Your task to perform on an android device: Add usb-c to usb-b to the cart on walmart, then select checkout. Image 0: 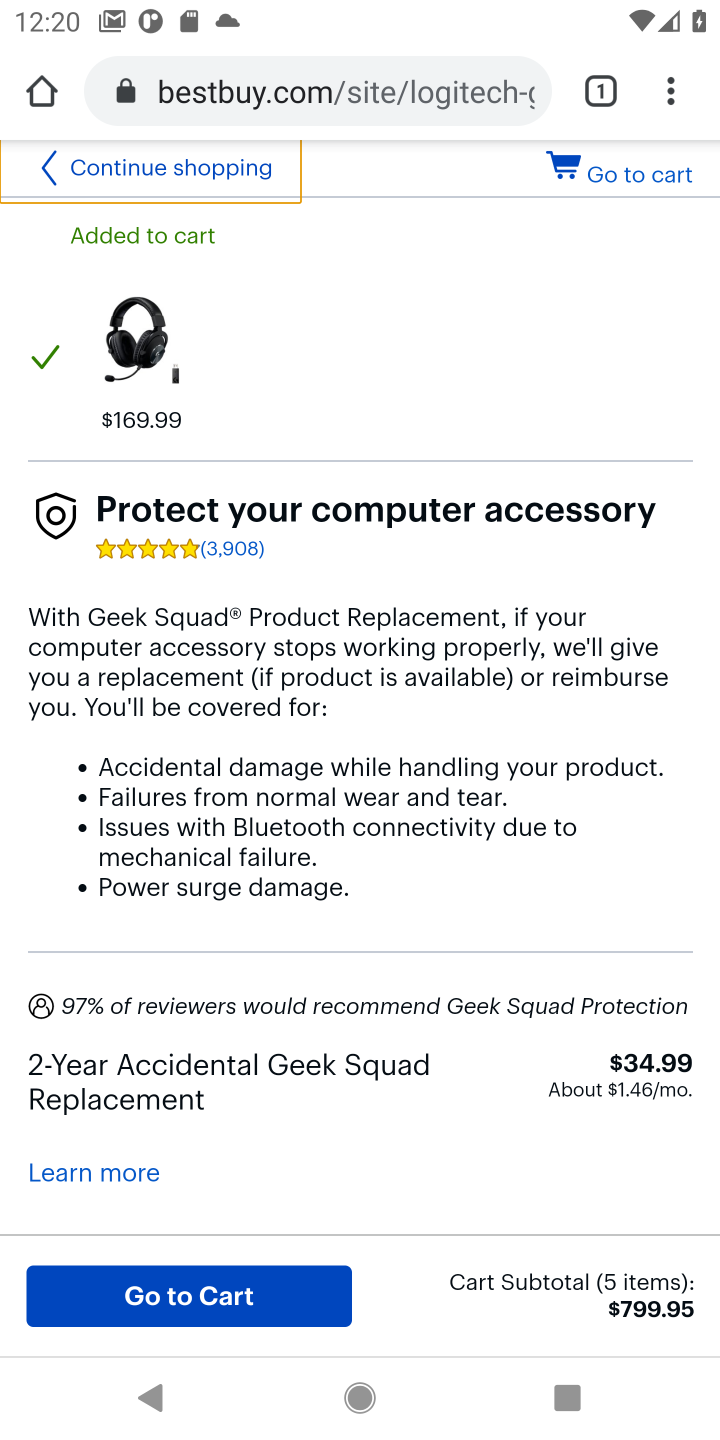
Step 0: click (396, 99)
Your task to perform on an android device: Add usb-c to usb-b to the cart on walmart, then select checkout. Image 1: 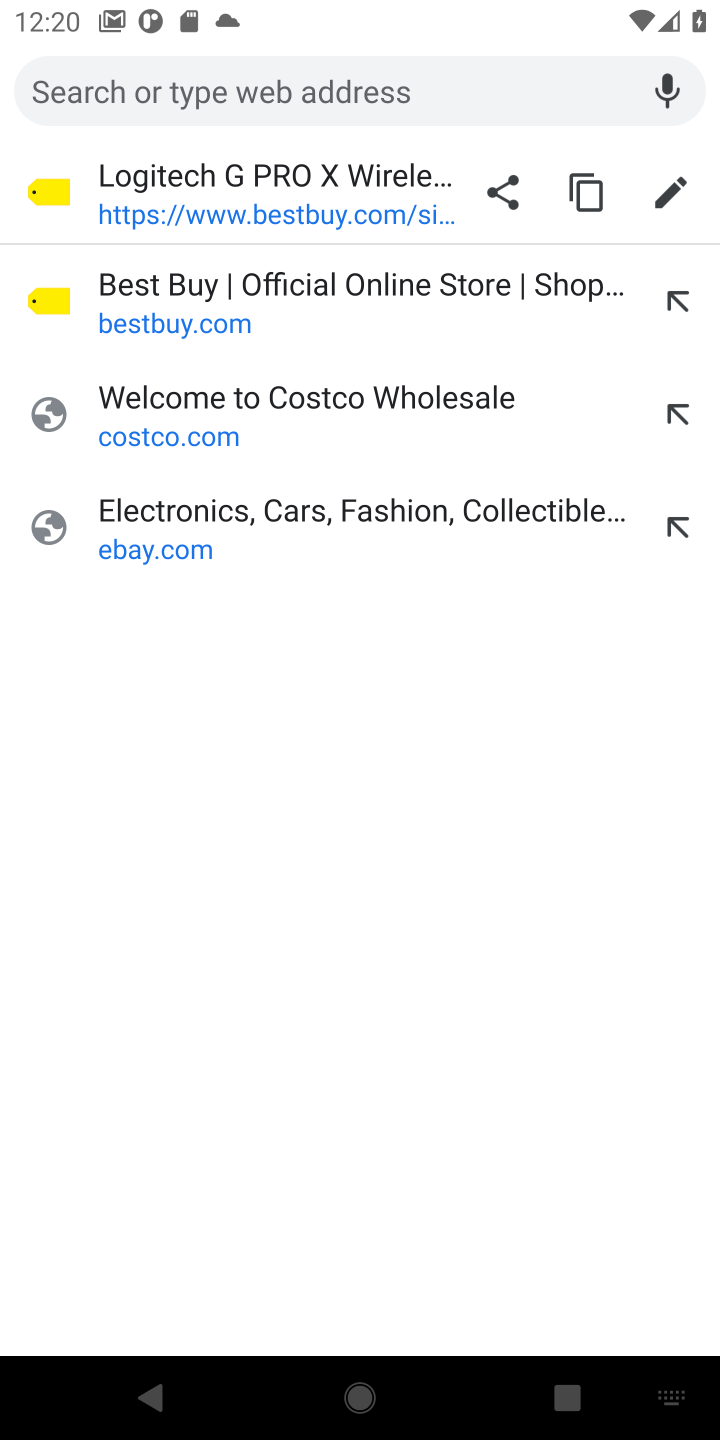
Step 1: type "usb-c to usb-b"
Your task to perform on an android device: Add usb-c to usb-b to the cart on walmart, then select checkout. Image 2: 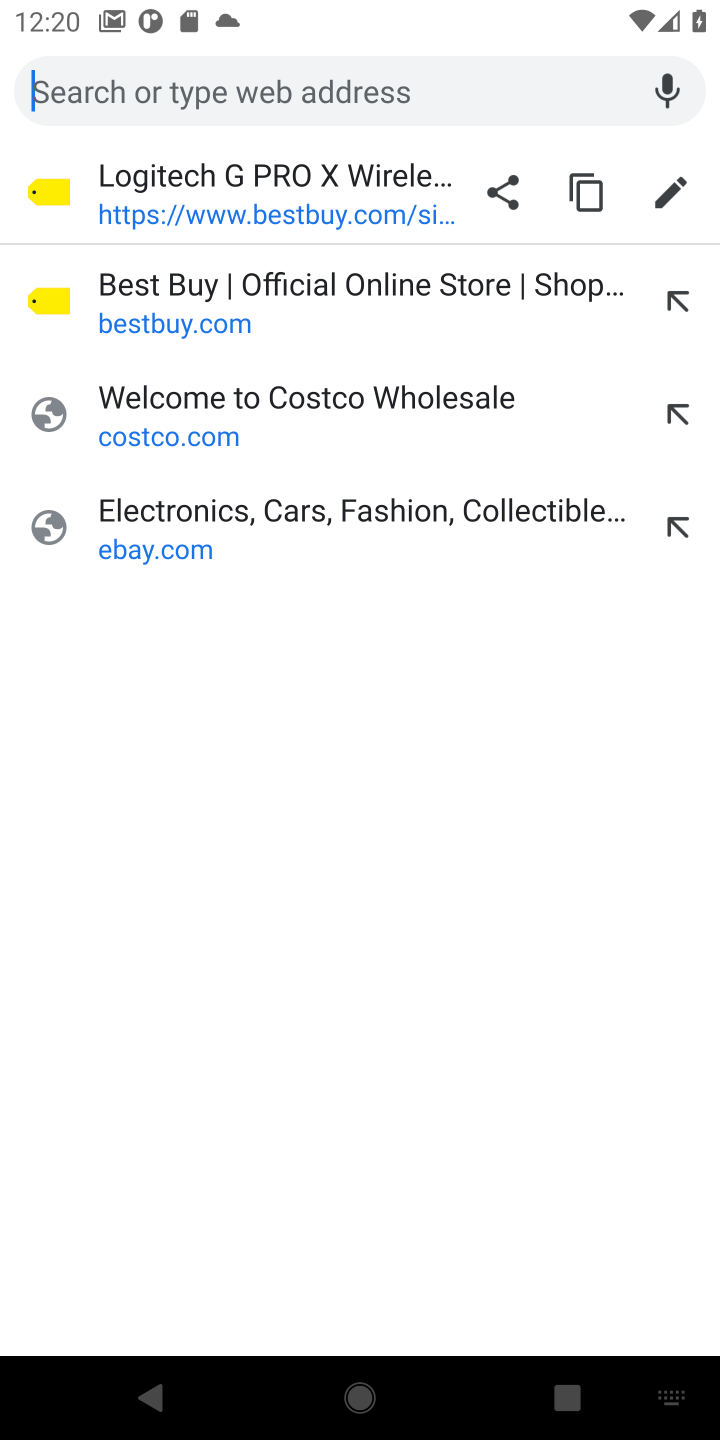
Step 2: click (379, 114)
Your task to perform on an android device: Add usb-c to usb-b to the cart on walmart, then select checkout. Image 3: 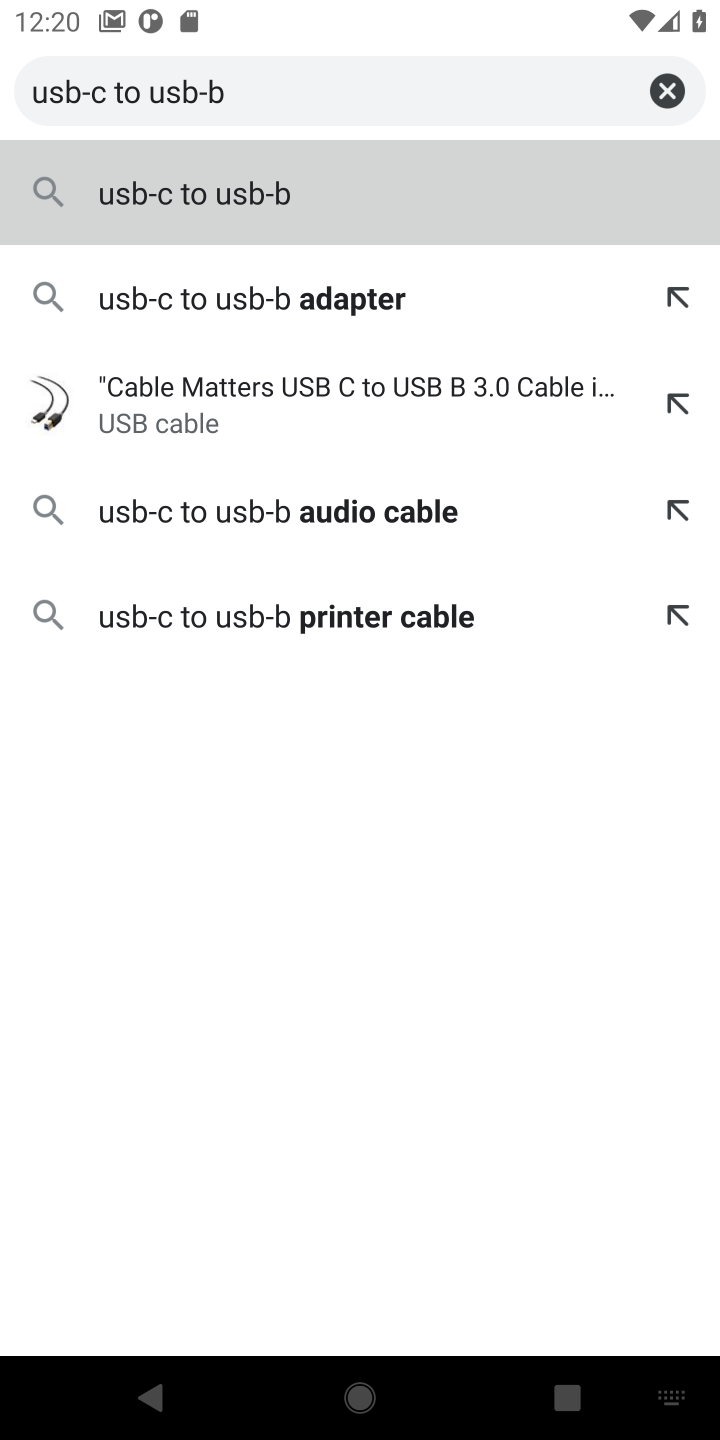
Step 3: click (393, 102)
Your task to perform on an android device: Add usb-c to usb-b to the cart on walmart, then select checkout. Image 4: 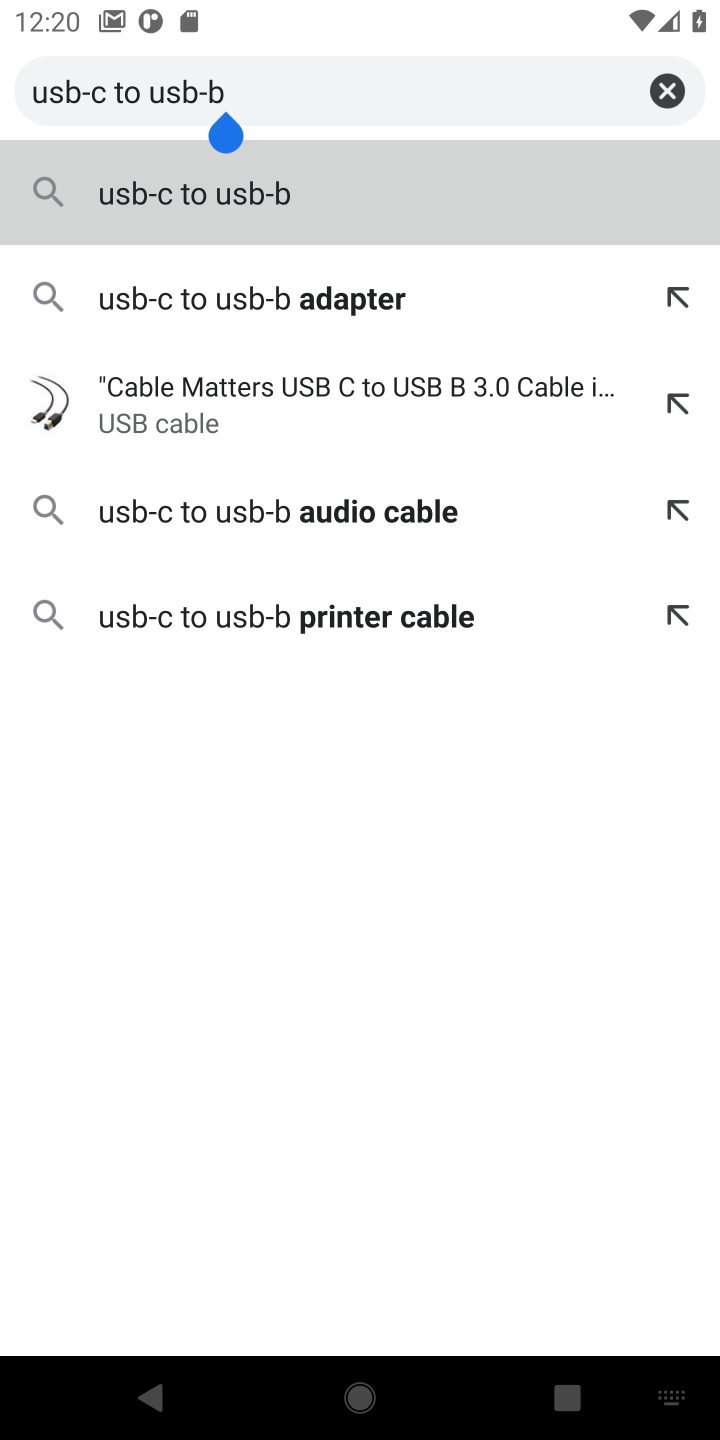
Step 4: click (266, 325)
Your task to perform on an android device: Add usb-c to usb-b to the cart on walmart, then select checkout. Image 5: 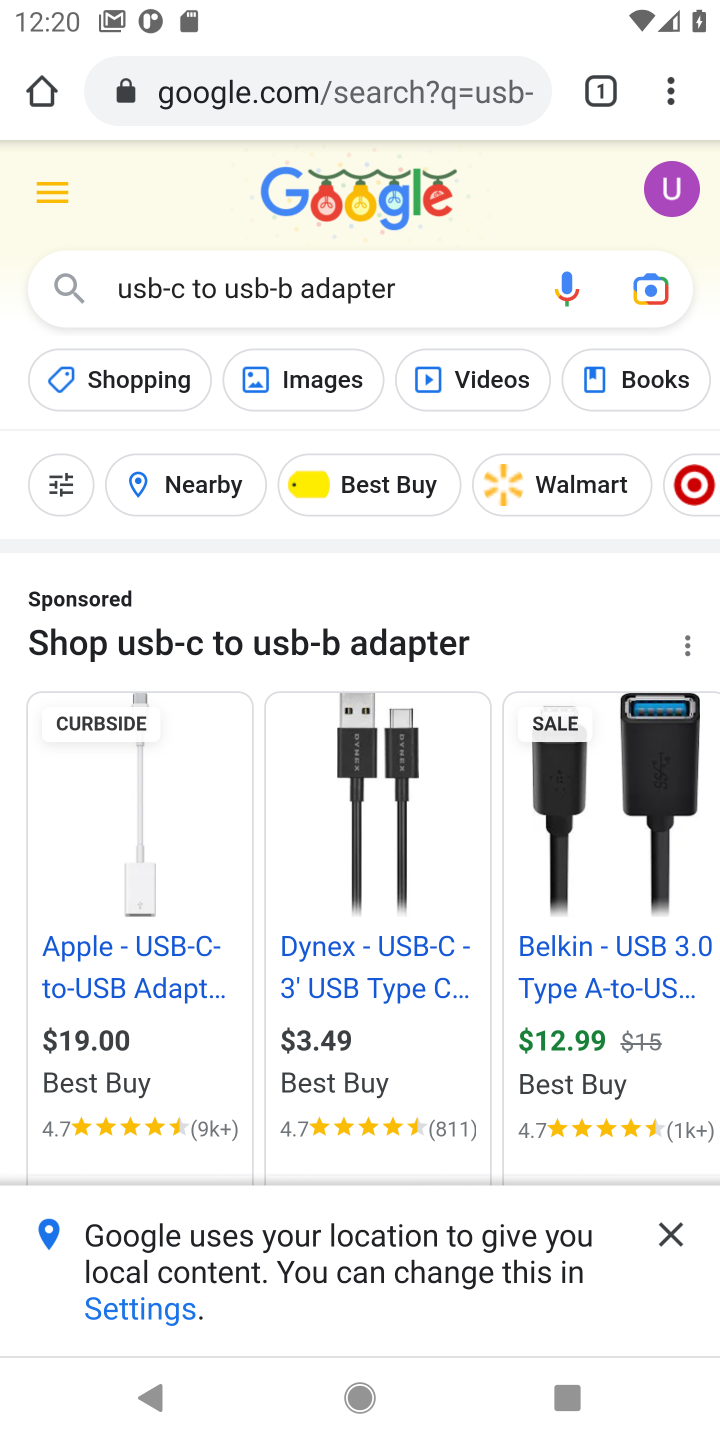
Step 5: click (199, 954)
Your task to perform on an android device: Add usb-c to usb-b to the cart on walmart, then select checkout. Image 6: 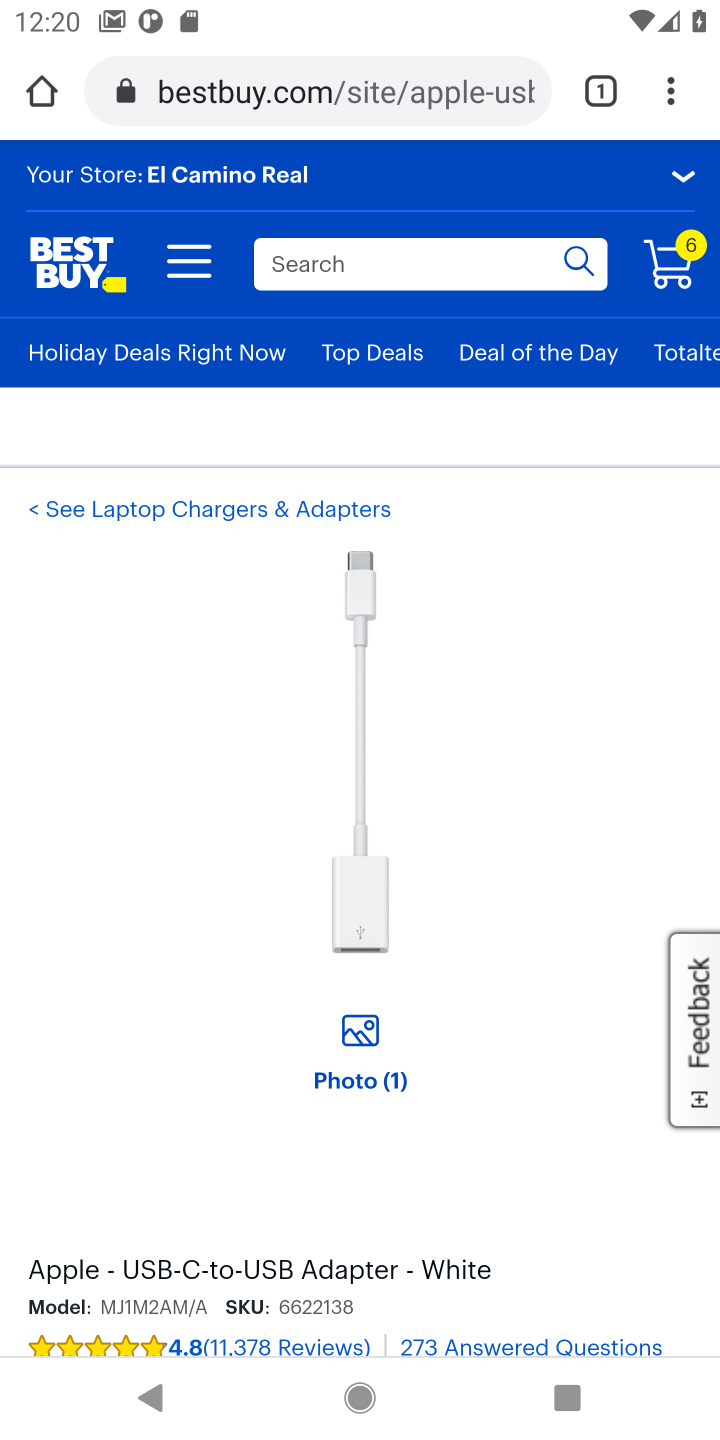
Step 6: task complete